Your task to perform on an android device: Open calendar and show me the third week of next month Image 0: 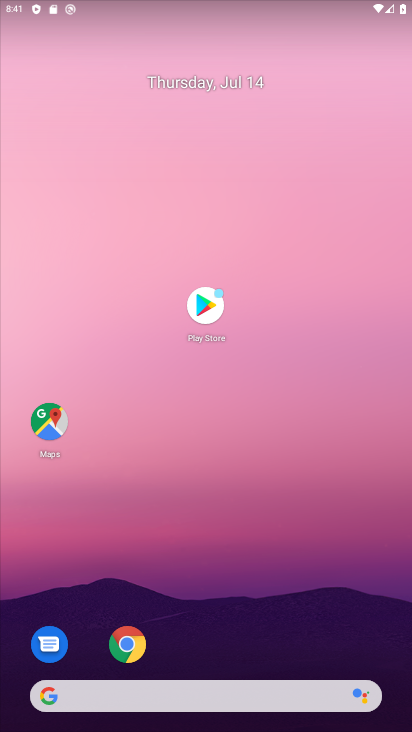
Step 0: click (167, 198)
Your task to perform on an android device: Open calendar and show me the third week of next month Image 1: 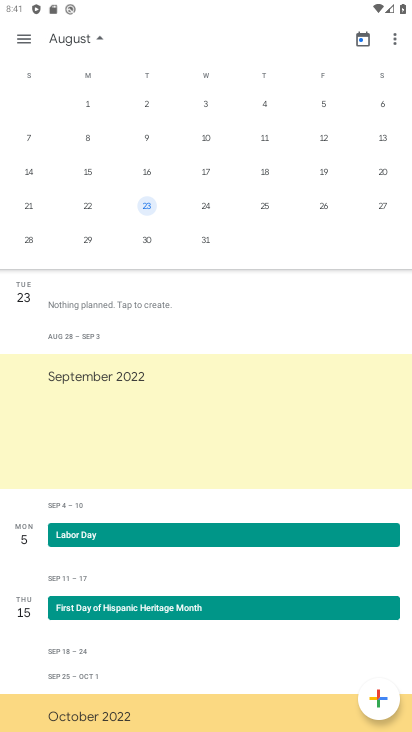
Step 1: press home button
Your task to perform on an android device: Open calendar and show me the third week of next month Image 2: 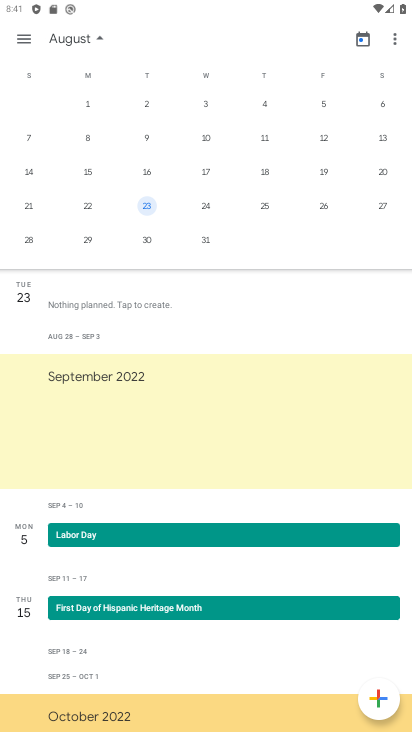
Step 2: drag from (164, 582) to (216, 244)
Your task to perform on an android device: Open calendar and show me the third week of next month Image 3: 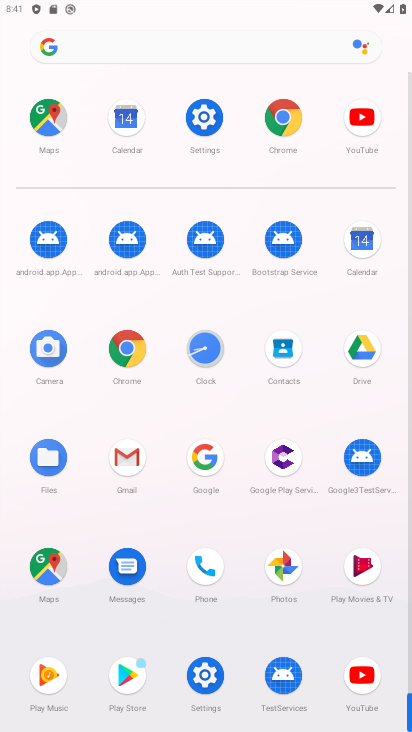
Step 3: click (361, 225)
Your task to perform on an android device: Open calendar and show me the third week of next month Image 4: 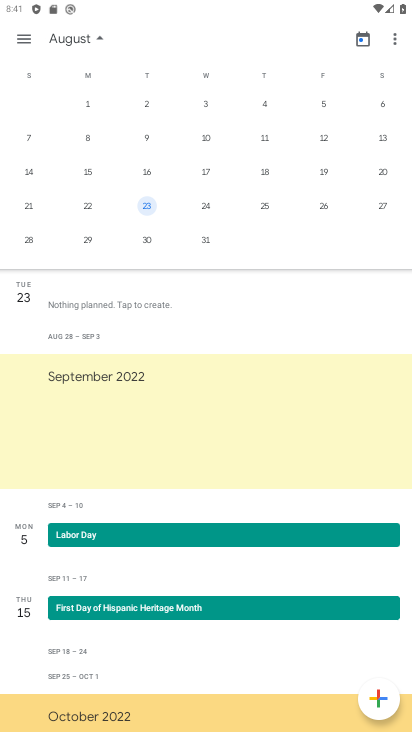
Step 4: click (363, 39)
Your task to perform on an android device: Open calendar and show me the third week of next month Image 5: 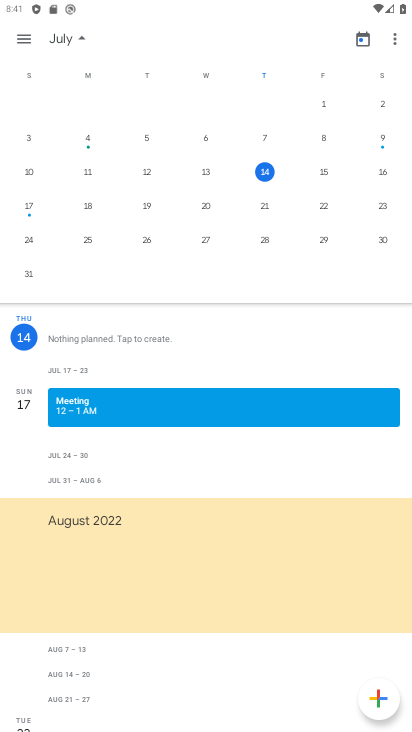
Step 5: drag from (382, 197) to (3, 190)
Your task to perform on an android device: Open calendar and show me the third week of next month Image 6: 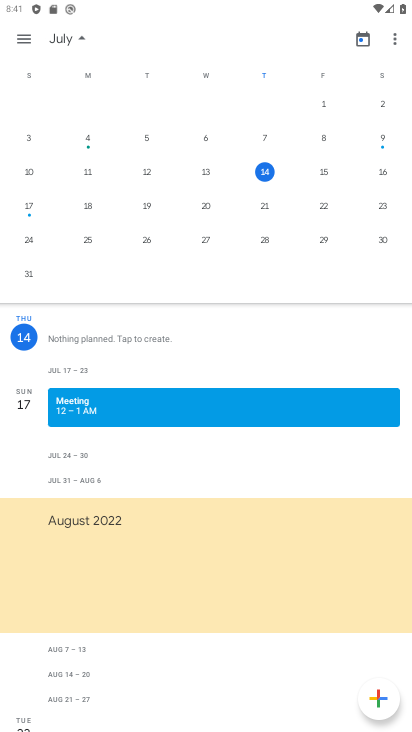
Step 6: drag from (386, 172) to (49, 184)
Your task to perform on an android device: Open calendar and show me the third week of next month Image 7: 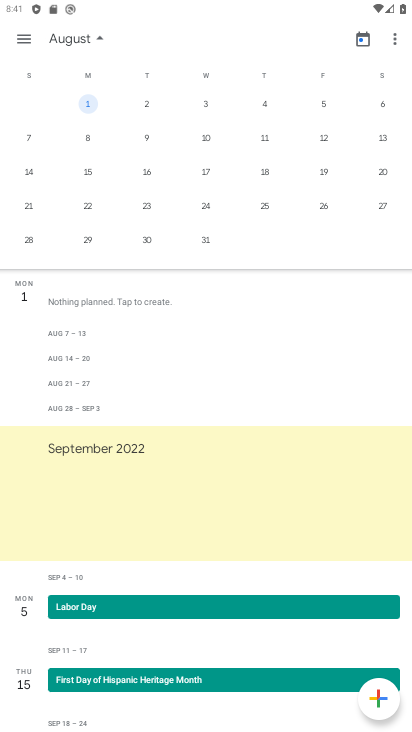
Step 7: click (320, 170)
Your task to perform on an android device: Open calendar and show me the third week of next month Image 8: 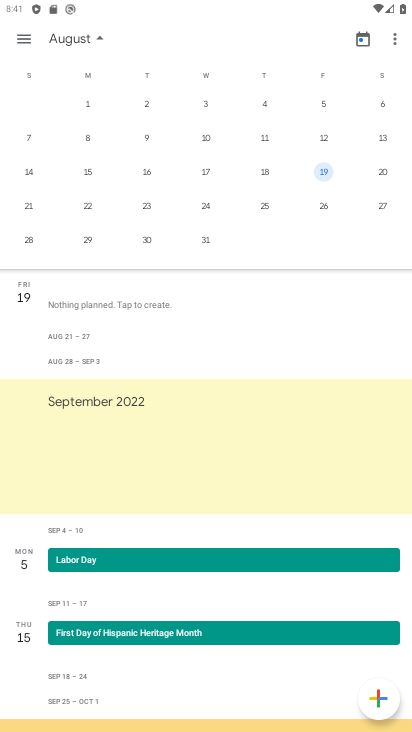
Step 8: task complete